Your task to perform on an android device: toggle notifications settings in the gmail app Image 0: 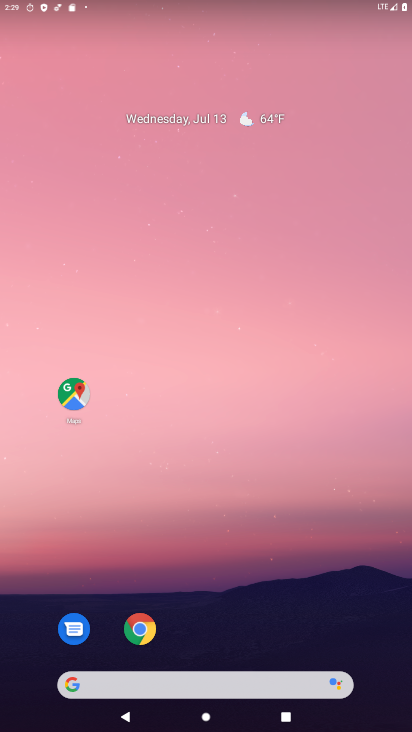
Step 0: drag from (175, 685) to (149, 4)
Your task to perform on an android device: toggle notifications settings in the gmail app Image 1: 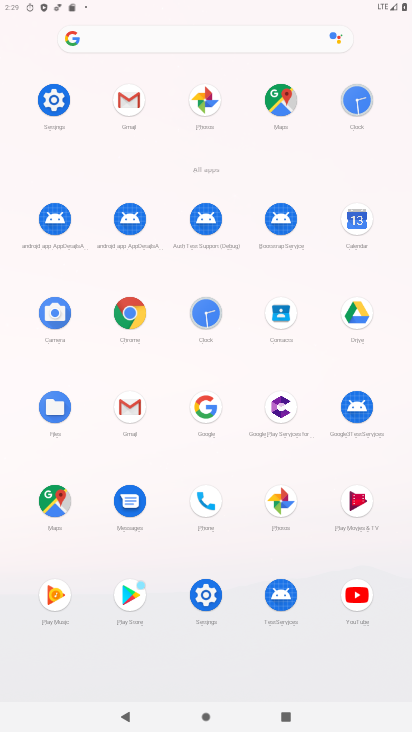
Step 1: click (136, 400)
Your task to perform on an android device: toggle notifications settings in the gmail app Image 2: 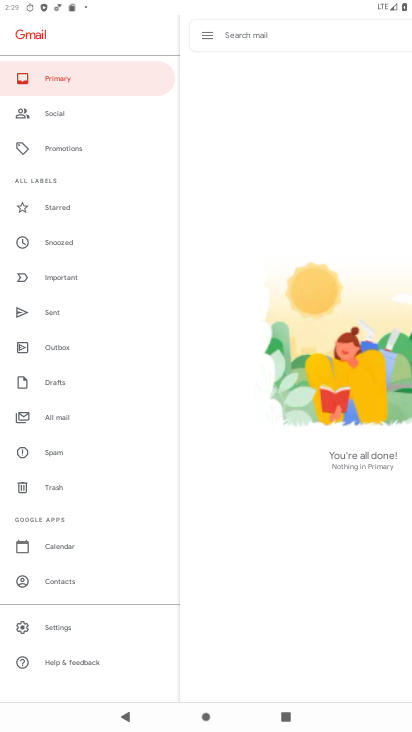
Step 2: click (59, 626)
Your task to perform on an android device: toggle notifications settings in the gmail app Image 3: 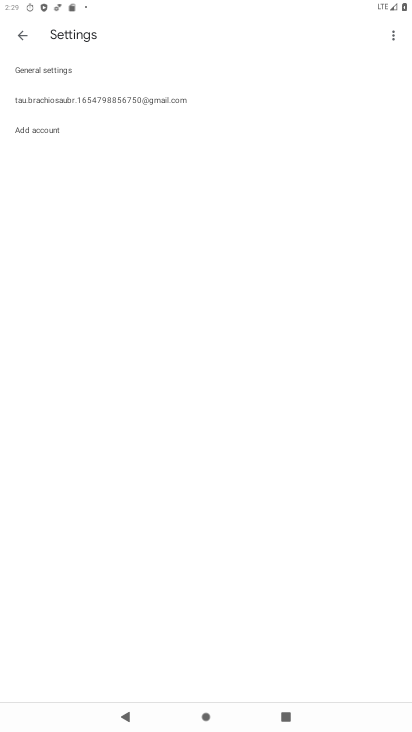
Step 3: click (55, 102)
Your task to perform on an android device: toggle notifications settings in the gmail app Image 4: 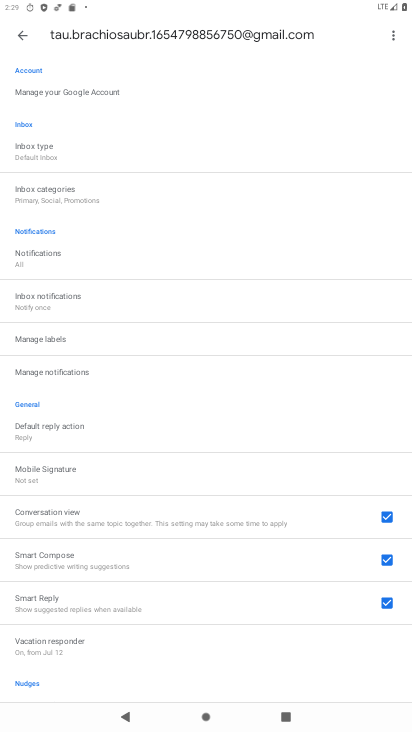
Step 4: click (81, 377)
Your task to perform on an android device: toggle notifications settings in the gmail app Image 5: 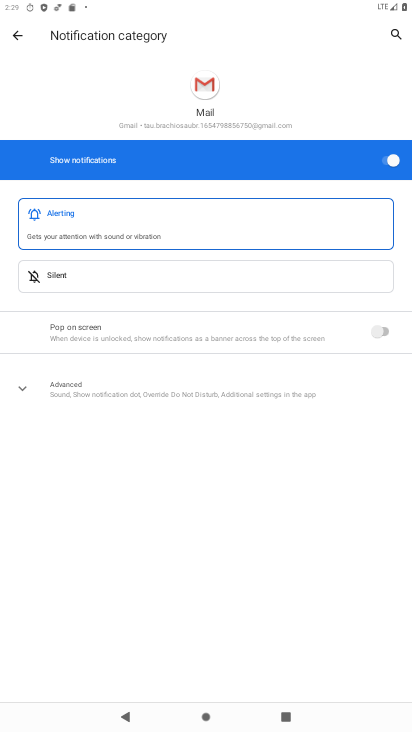
Step 5: click (389, 163)
Your task to perform on an android device: toggle notifications settings in the gmail app Image 6: 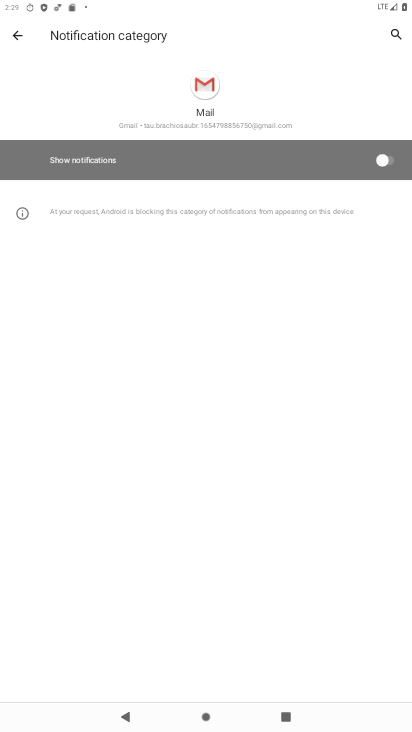
Step 6: task complete